Your task to perform on an android device: Go to location settings Image 0: 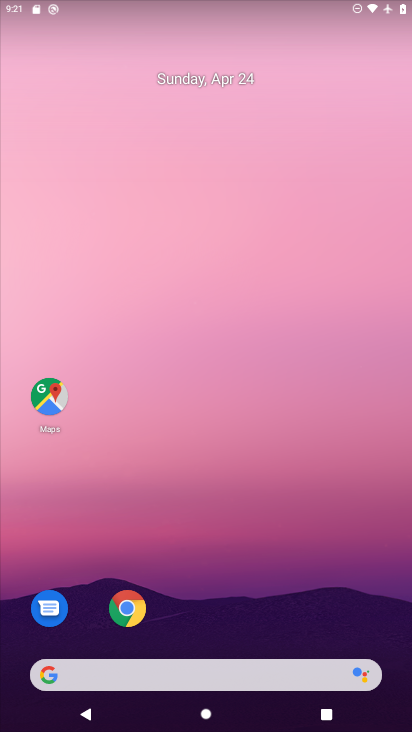
Step 0: drag from (220, 617) to (221, 150)
Your task to perform on an android device: Go to location settings Image 1: 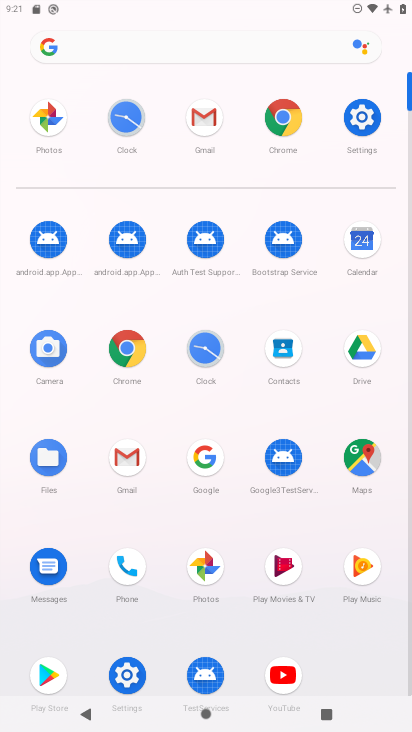
Step 1: click (350, 120)
Your task to perform on an android device: Go to location settings Image 2: 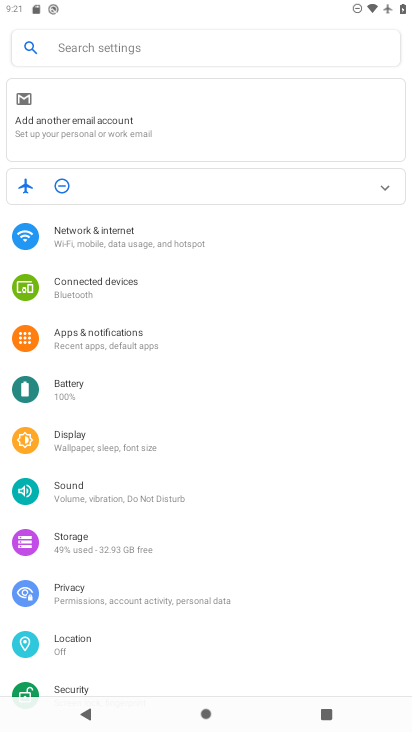
Step 2: click (126, 637)
Your task to perform on an android device: Go to location settings Image 3: 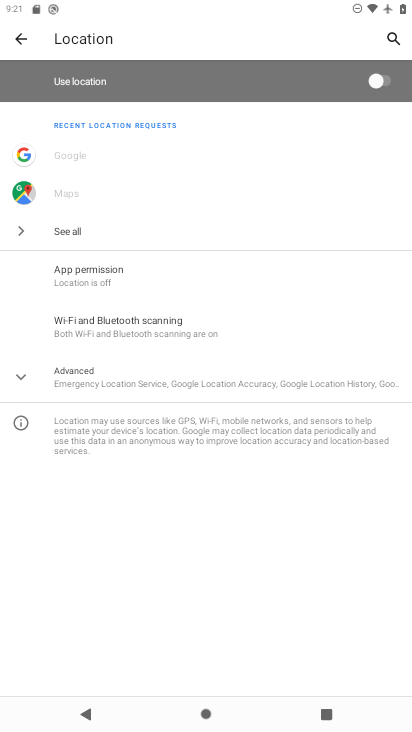
Step 3: click (95, 374)
Your task to perform on an android device: Go to location settings Image 4: 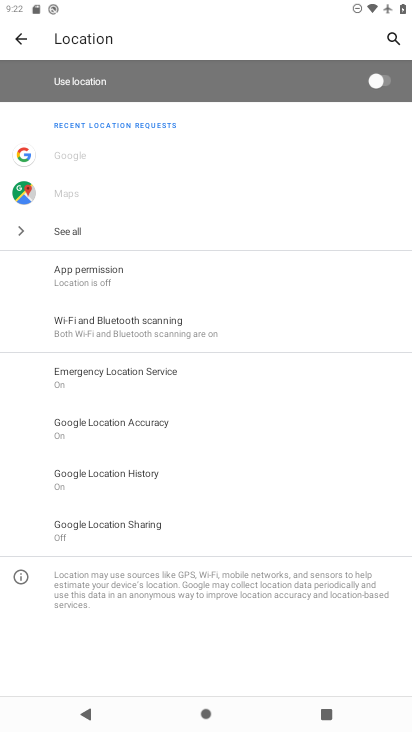
Step 4: task complete